Your task to perform on an android device: toggle priority inbox in the gmail app Image 0: 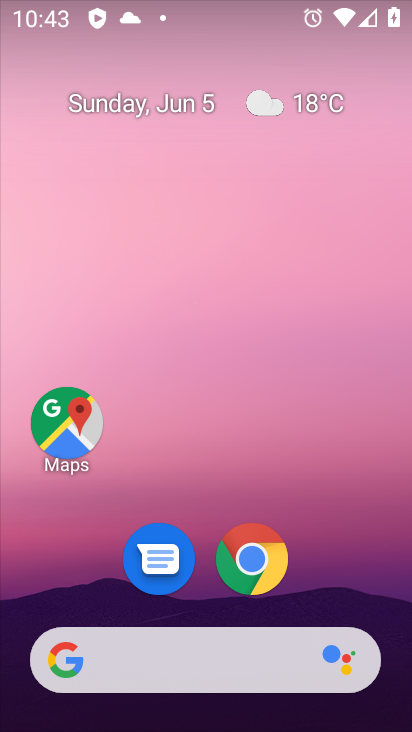
Step 0: drag from (379, 640) to (339, 168)
Your task to perform on an android device: toggle priority inbox in the gmail app Image 1: 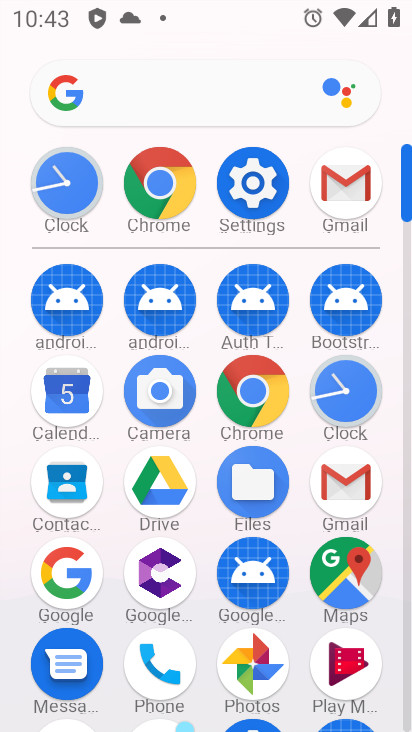
Step 1: click (350, 488)
Your task to perform on an android device: toggle priority inbox in the gmail app Image 2: 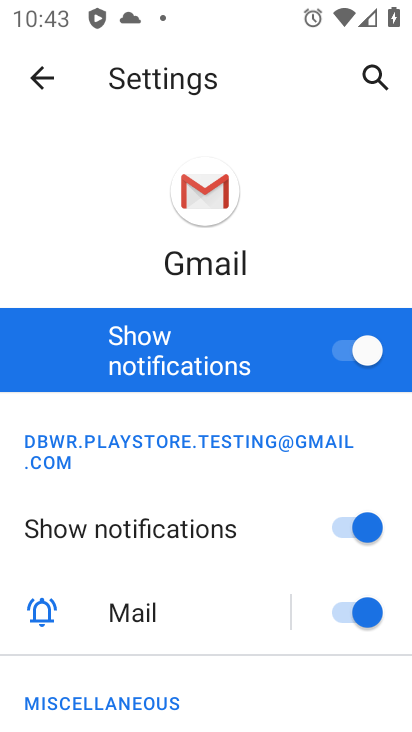
Step 2: drag from (219, 620) to (175, 250)
Your task to perform on an android device: toggle priority inbox in the gmail app Image 3: 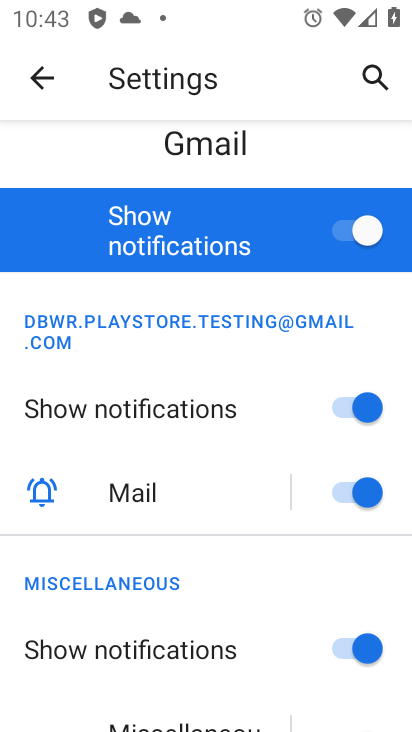
Step 3: click (45, 75)
Your task to perform on an android device: toggle priority inbox in the gmail app Image 4: 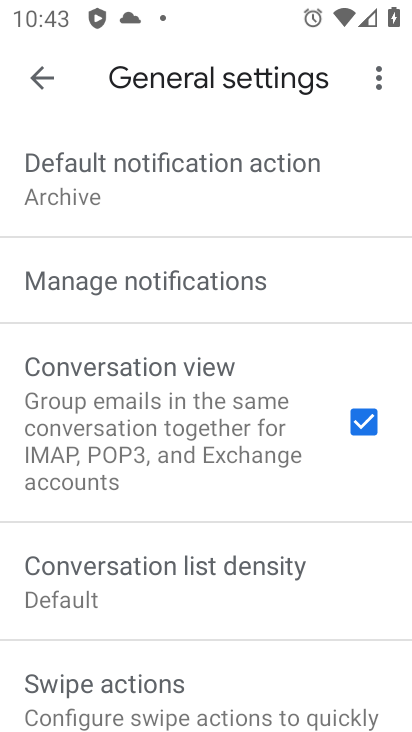
Step 4: click (31, 86)
Your task to perform on an android device: toggle priority inbox in the gmail app Image 5: 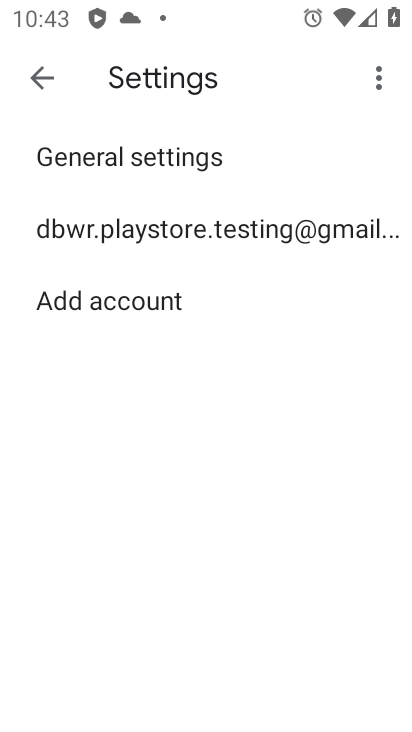
Step 5: click (93, 233)
Your task to perform on an android device: toggle priority inbox in the gmail app Image 6: 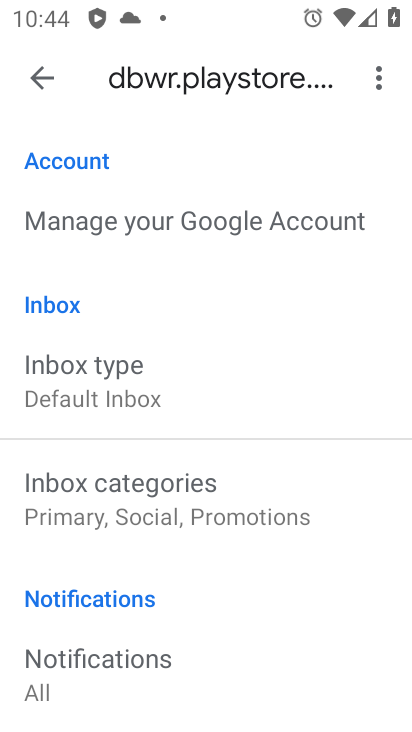
Step 6: click (91, 392)
Your task to perform on an android device: toggle priority inbox in the gmail app Image 7: 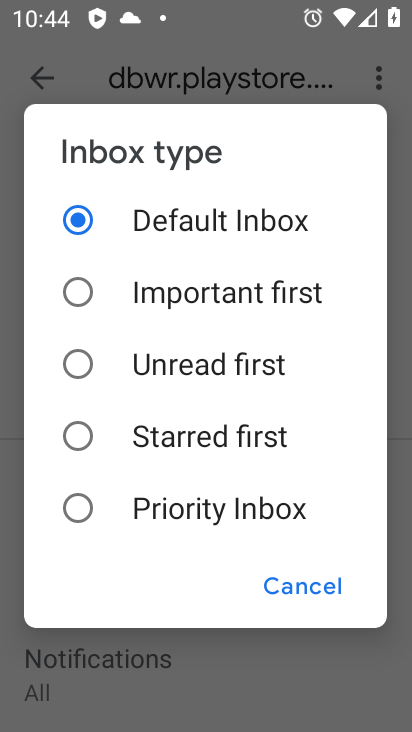
Step 7: click (92, 495)
Your task to perform on an android device: toggle priority inbox in the gmail app Image 8: 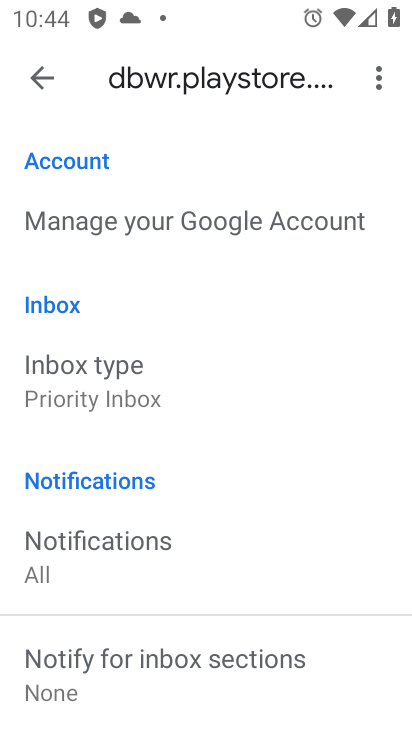
Step 8: task complete